Your task to perform on an android device: Set the phone to "Do not disturb". Image 0: 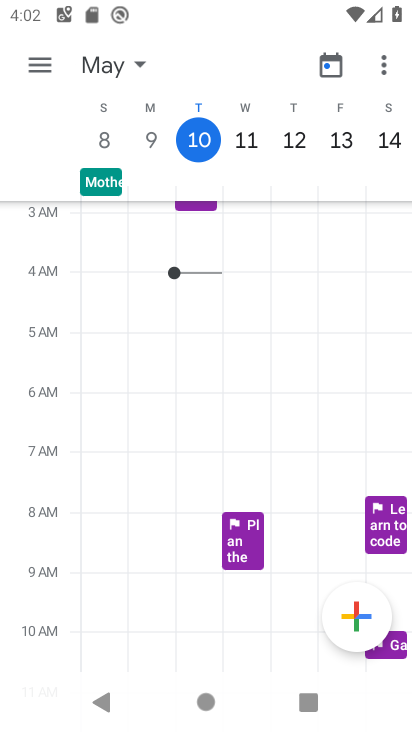
Step 0: press home button
Your task to perform on an android device: Set the phone to "Do not disturb". Image 1: 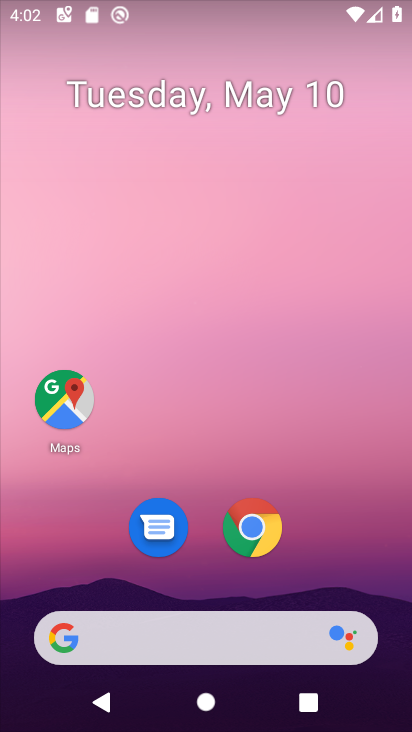
Step 1: drag from (389, 664) to (386, 623)
Your task to perform on an android device: Set the phone to "Do not disturb". Image 2: 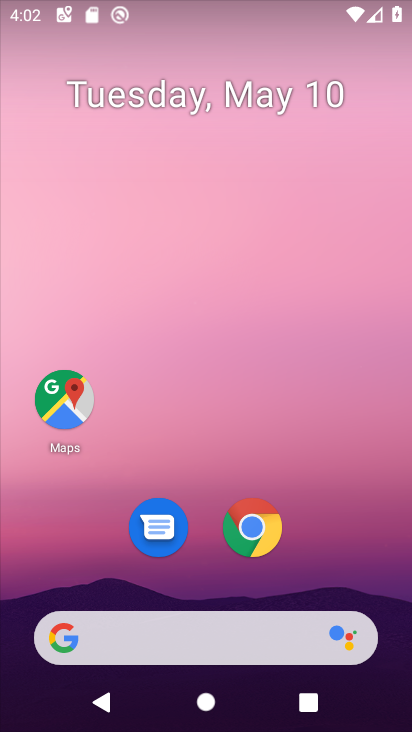
Step 2: click (343, 113)
Your task to perform on an android device: Set the phone to "Do not disturb". Image 3: 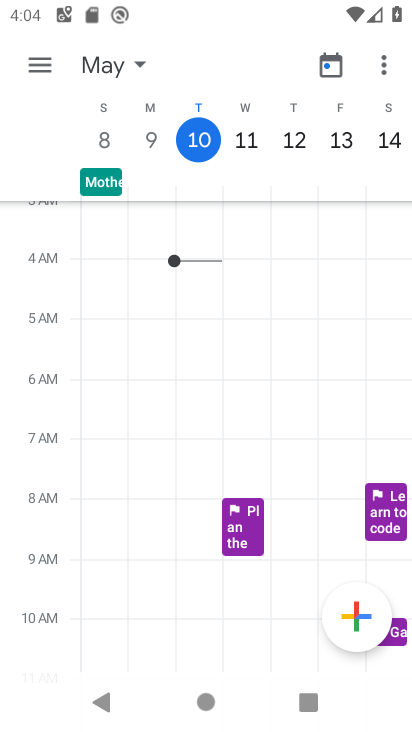
Step 3: press home button
Your task to perform on an android device: Set the phone to "Do not disturb". Image 4: 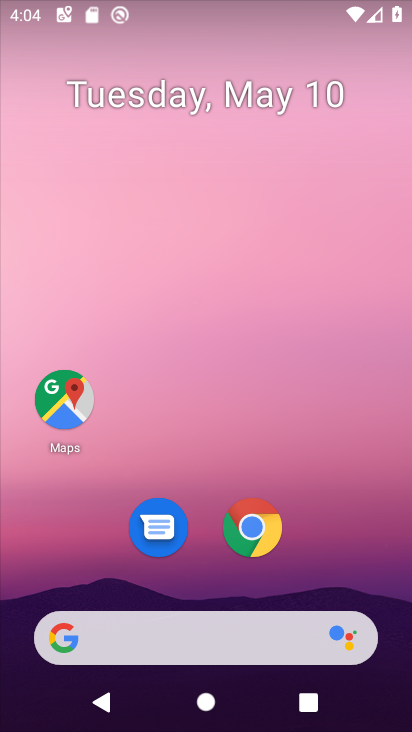
Step 4: drag from (393, 651) to (379, 232)
Your task to perform on an android device: Set the phone to "Do not disturb". Image 5: 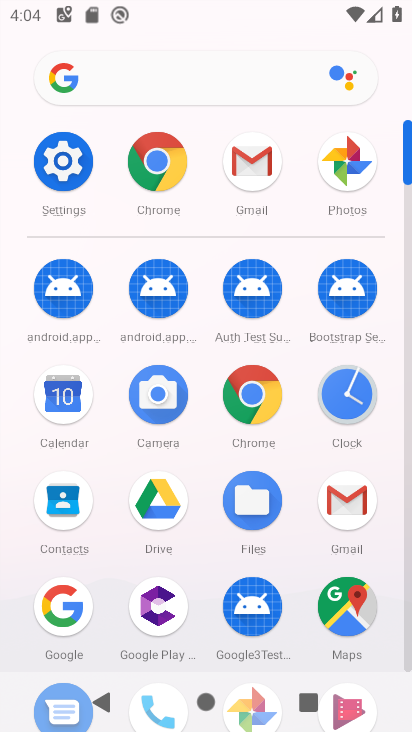
Step 5: click (60, 158)
Your task to perform on an android device: Set the phone to "Do not disturb". Image 6: 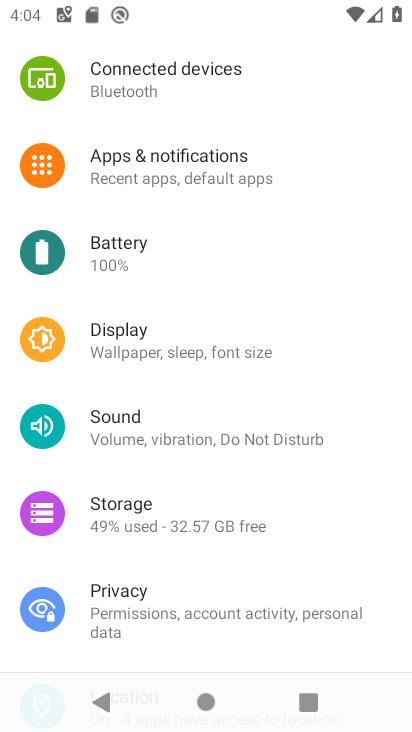
Step 6: drag from (339, 573) to (333, 320)
Your task to perform on an android device: Set the phone to "Do not disturb". Image 7: 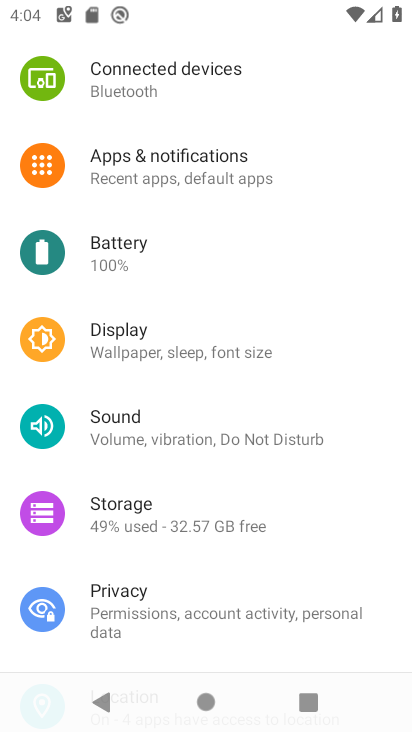
Step 7: click (166, 439)
Your task to perform on an android device: Set the phone to "Do not disturb". Image 8: 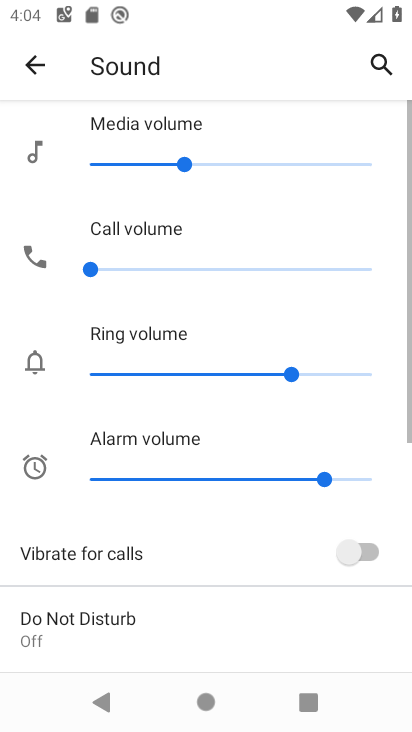
Step 8: drag from (225, 579) to (235, 326)
Your task to perform on an android device: Set the phone to "Do not disturb". Image 9: 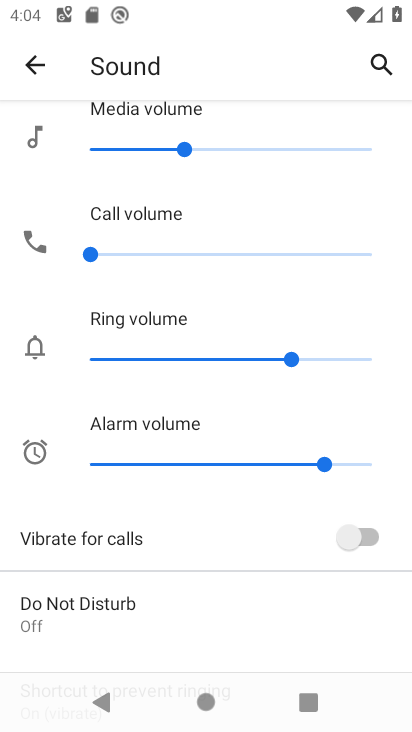
Step 9: click (70, 601)
Your task to perform on an android device: Set the phone to "Do not disturb". Image 10: 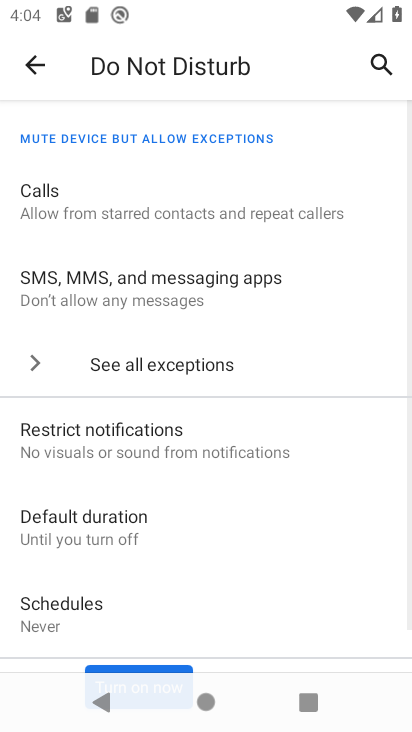
Step 10: drag from (278, 620) to (281, 377)
Your task to perform on an android device: Set the phone to "Do not disturb". Image 11: 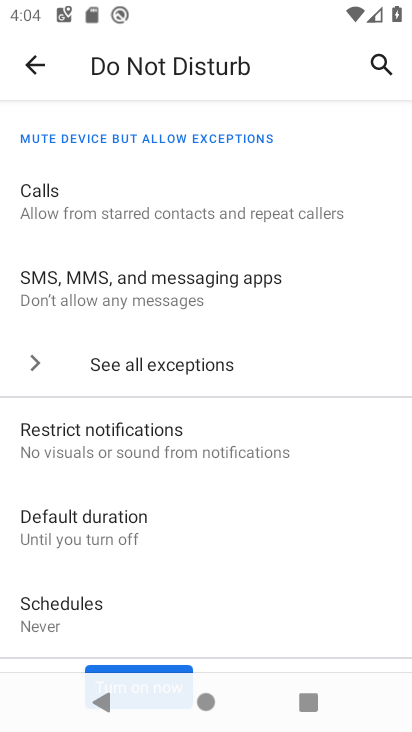
Step 11: drag from (277, 639) to (307, 333)
Your task to perform on an android device: Set the phone to "Do not disturb". Image 12: 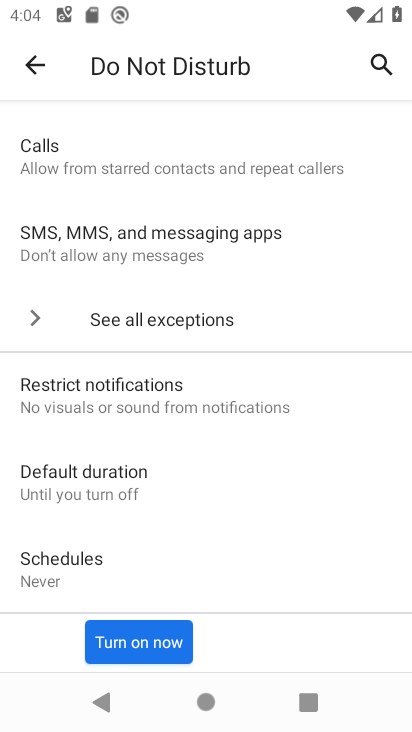
Step 12: click (124, 649)
Your task to perform on an android device: Set the phone to "Do not disturb". Image 13: 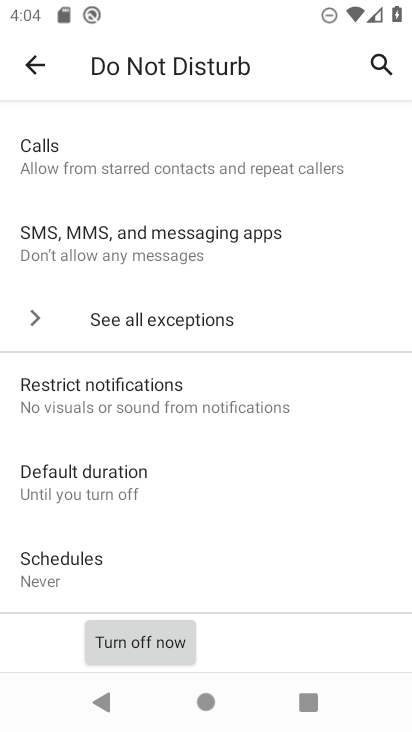
Step 13: task complete